Your task to perform on an android device: star an email in the gmail app Image 0: 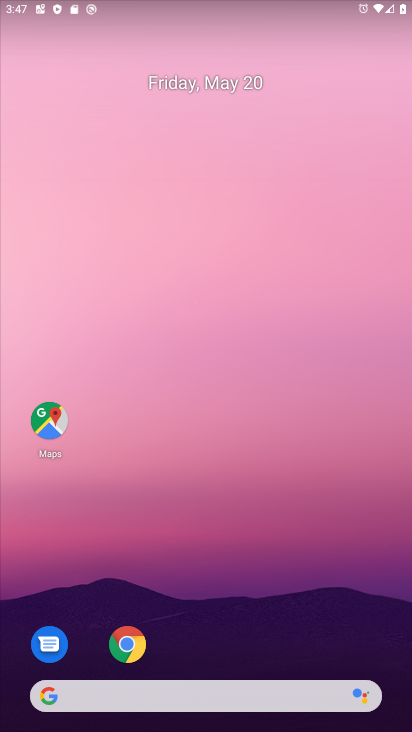
Step 0: drag from (305, 613) to (308, 170)
Your task to perform on an android device: star an email in the gmail app Image 1: 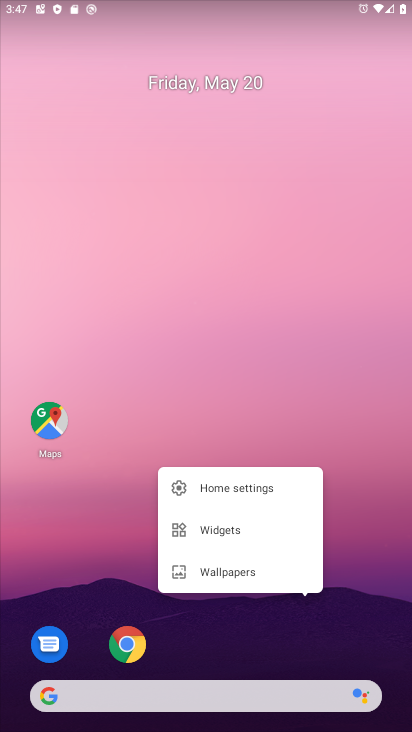
Step 1: click (290, 320)
Your task to perform on an android device: star an email in the gmail app Image 2: 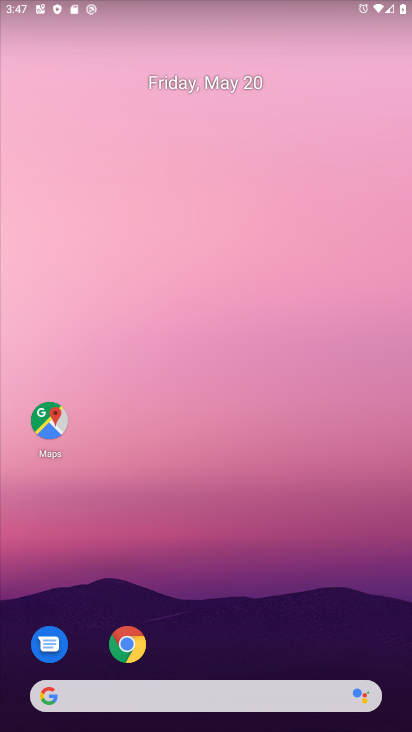
Step 2: drag from (246, 591) to (212, 347)
Your task to perform on an android device: star an email in the gmail app Image 3: 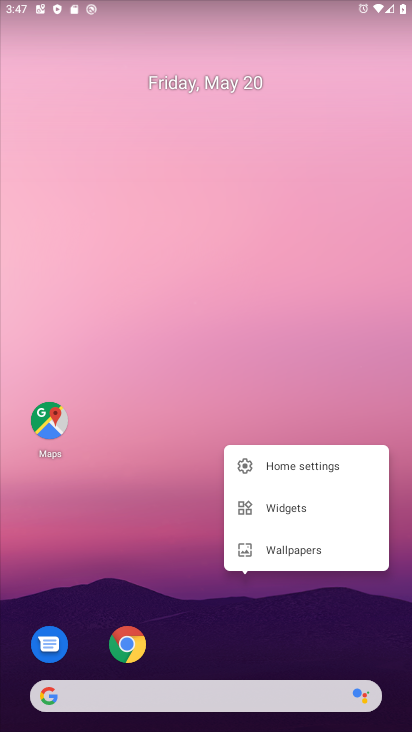
Step 3: click (110, 442)
Your task to perform on an android device: star an email in the gmail app Image 4: 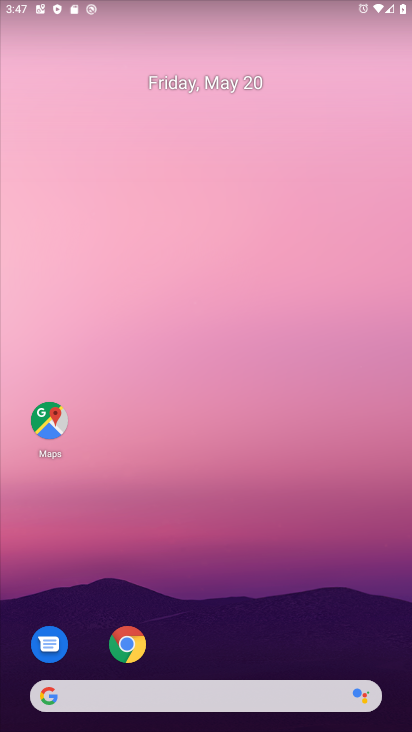
Step 4: drag from (288, 594) to (266, 315)
Your task to perform on an android device: star an email in the gmail app Image 5: 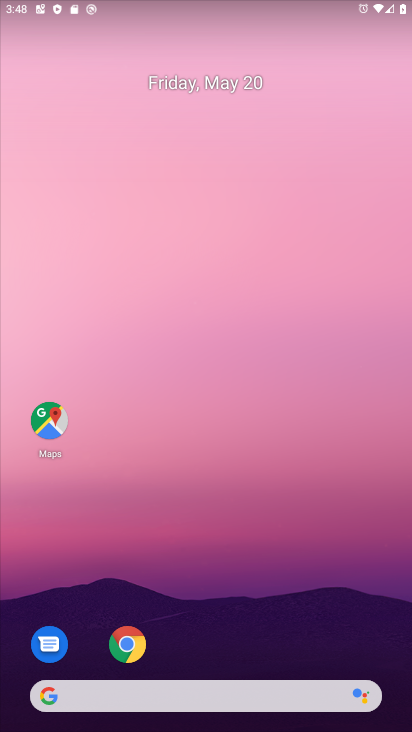
Step 5: drag from (237, 613) to (171, 203)
Your task to perform on an android device: star an email in the gmail app Image 6: 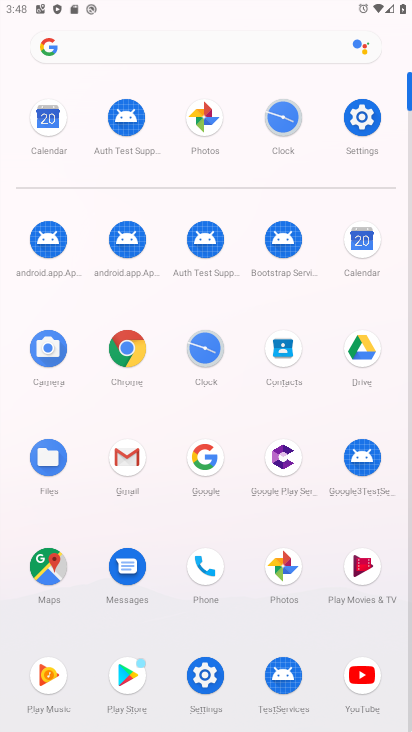
Step 6: click (149, 461)
Your task to perform on an android device: star an email in the gmail app Image 7: 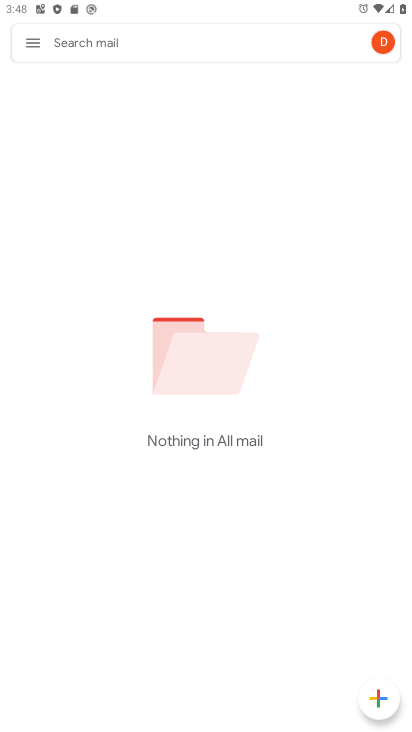
Step 7: task complete